Your task to perform on an android device: toggle wifi Image 0: 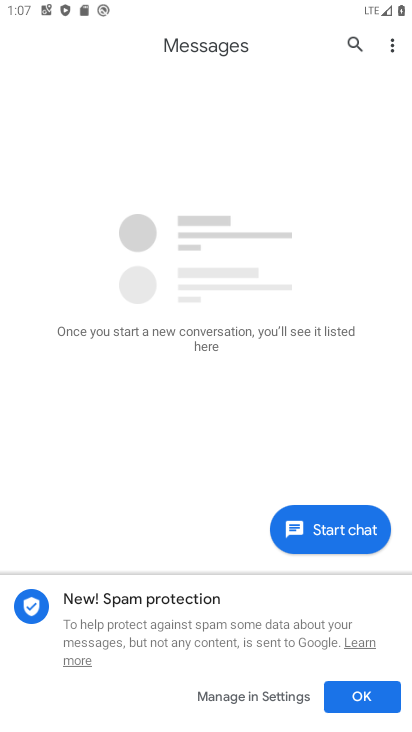
Step 0: press home button
Your task to perform on an android device: toggle wifi Image 1: 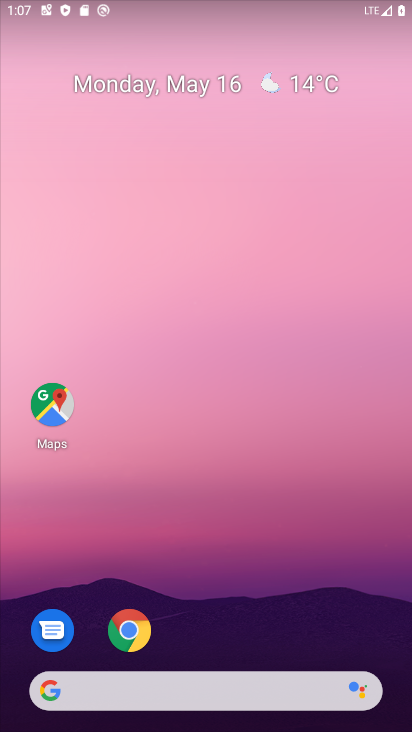
Step 1: drag from (340, 8) to (319, 498)
Your task to perform on an android device: toggle wifi Image 2: 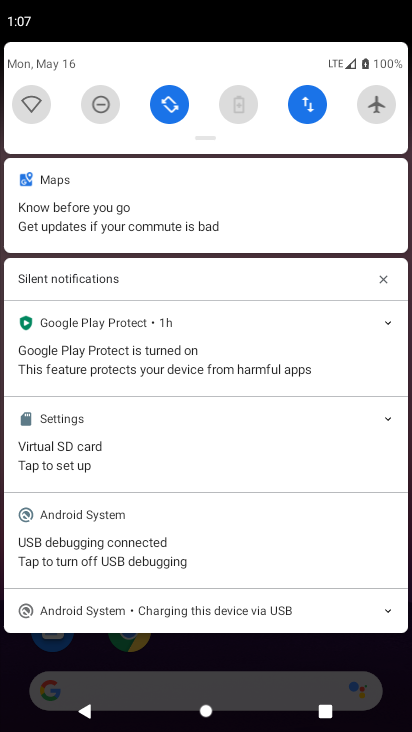
Step 2: click (18, 105)
Your task to perform on an android device: toggle wifi Image 3: 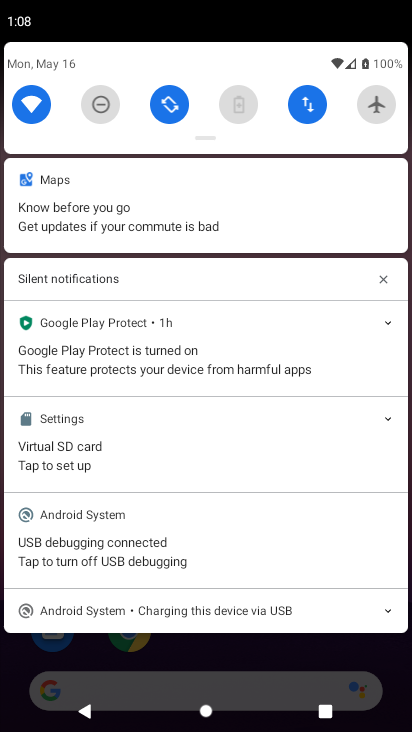
Step 3: task complete